Your task to perform on an android device: turn notification dots on Image 0: 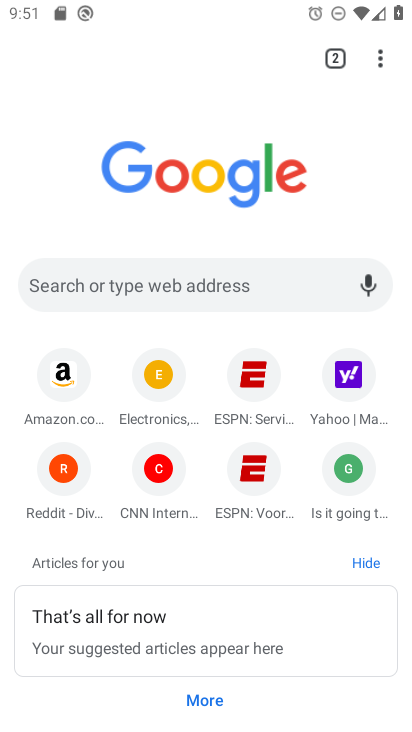
Step 0: press home button
Your task to perform on an android device: turn notification dots on Image 1: 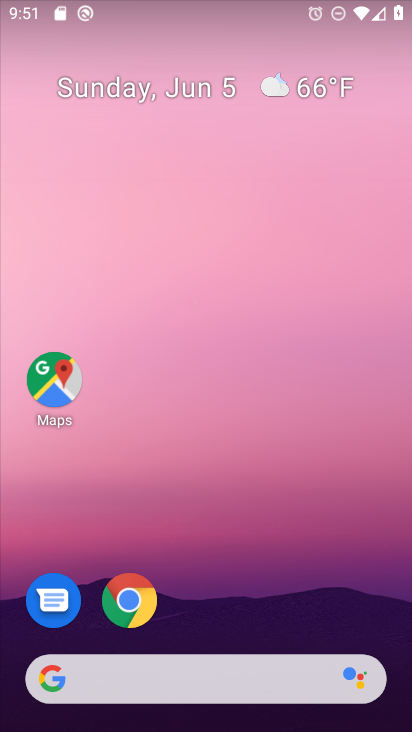
Step 1: drag from (328, 598) to (123, 13)
Your task to perform on an android device: turn notification dots on Image 2: 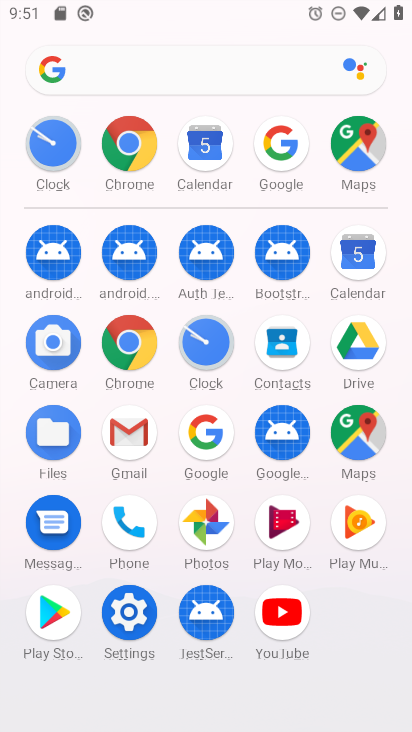
Step 2: click (113, 613)
Your task to perform on an android device: turn notification dots on Image 3: 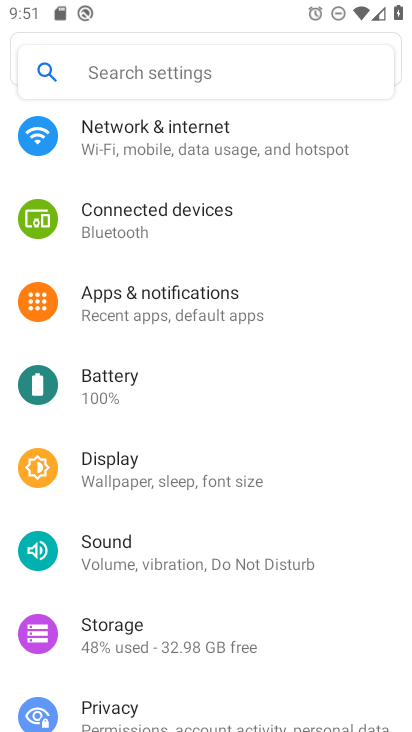
Step 3: click (193, 320)
Your task to perform on an android device: turn notification dots on Image 4: 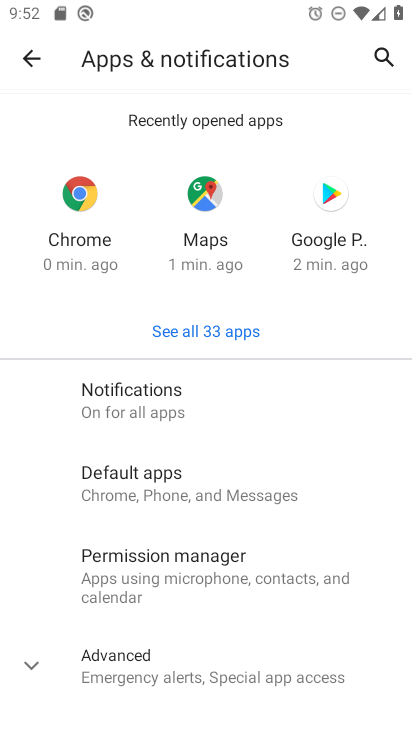
Step 4: click (172, 395)
Your task to perform on an android device: turn notification dots on Image 5: 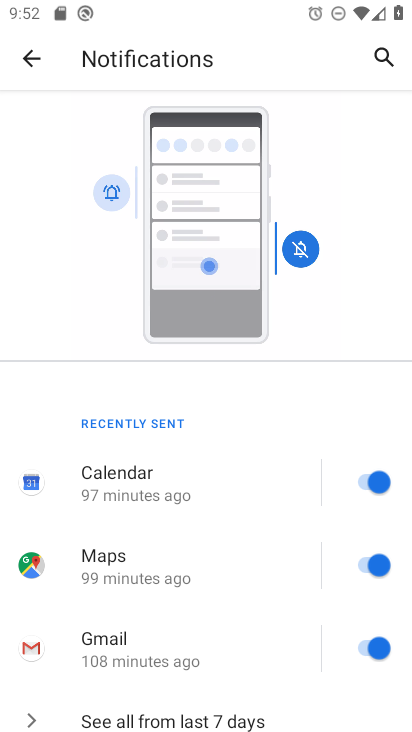
Step 5: drag from (69, 666) to (122, 83)
Your task to perform on an android device: turn notification dots on Image 6: 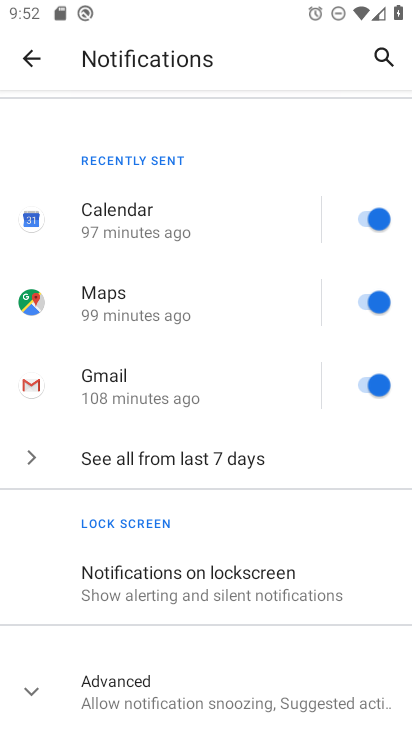
Step 6: click (168, 684)
Your task to perform on an android device: turn notification dots on Image 7: 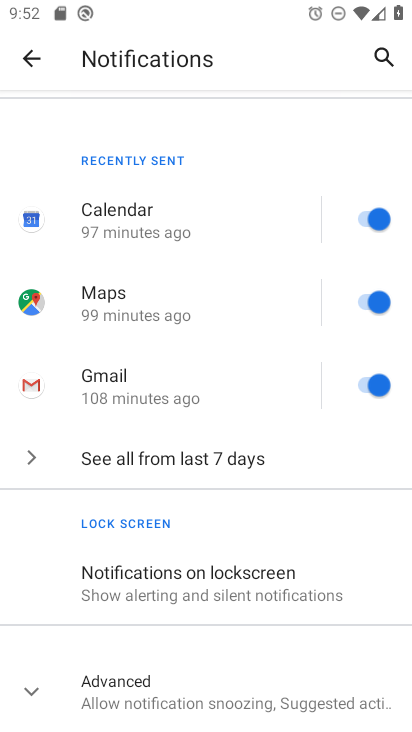
Step 7: task complete